Your task to perform on an android device: check android version Image 0: 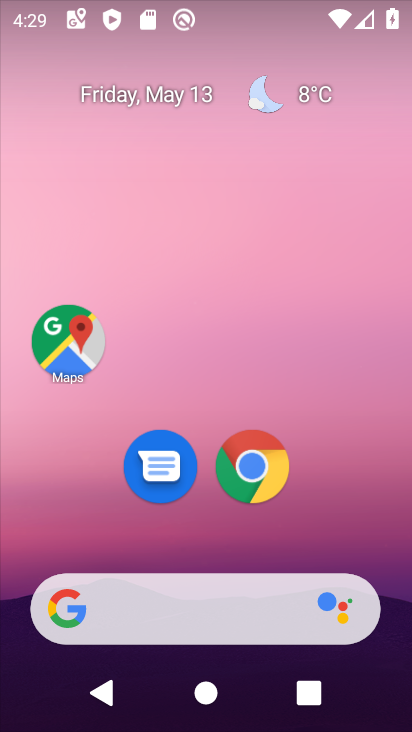
Step 0: drag from (398, 612) to (312, 80)
Your task to perform on an android device: check android version Image 1: 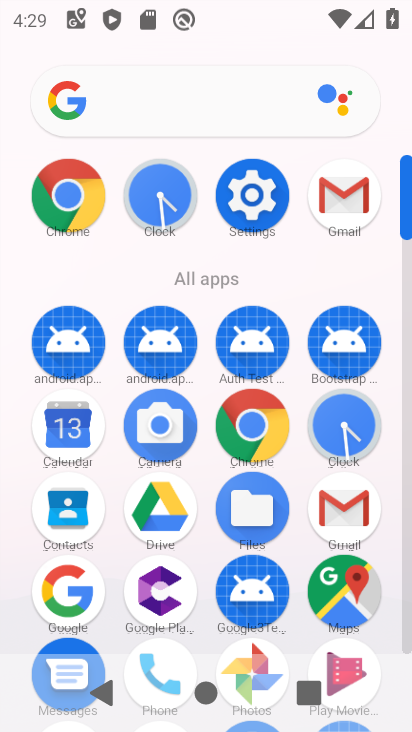
Step 1: click (407, 648)
Your task to perform on an android device: check android version Image 2: 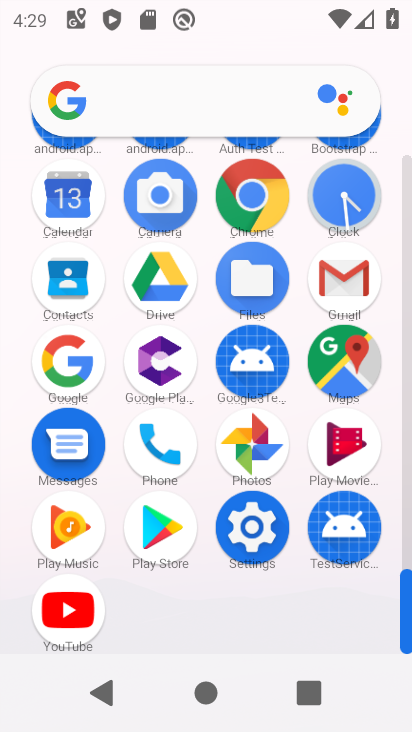
Step 2: click (249, 524)
Your task to perform on an android device: check android version Image 3: 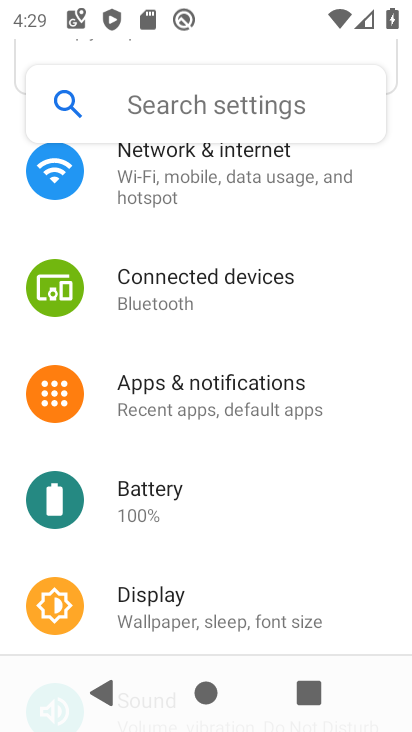
Step 3: drag from (338, 620) to (343, 156)
Your task to perform on an android device: check android version Image 4: 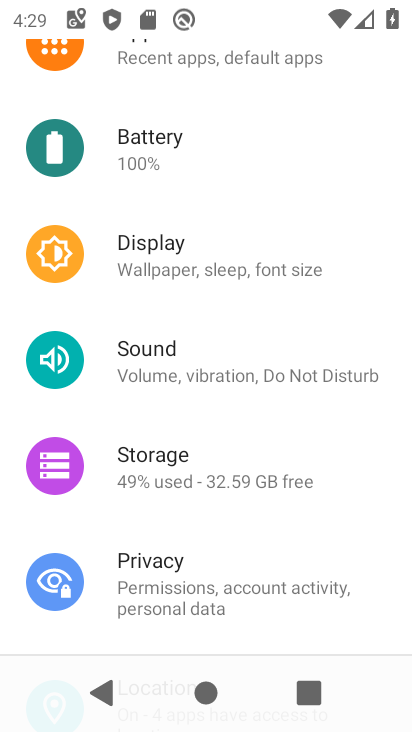
Step 4: drag from (352, 617) to (368, 119)
Your task to perform on an android device: check android version Image 5: 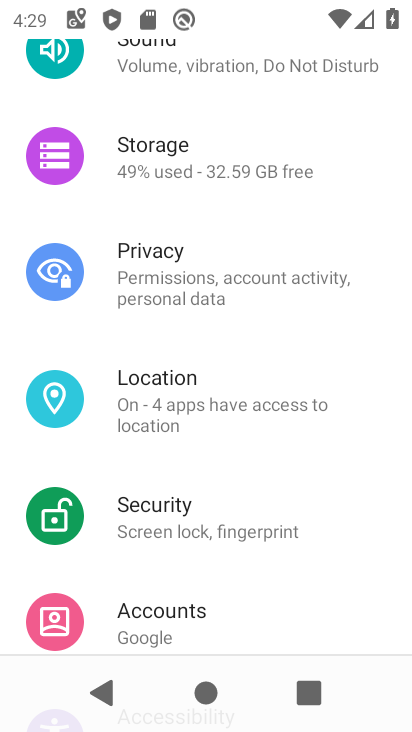
Step 5: drag from (331, 587) to (349, 124)
Your task to perform on an android device: check android version Image 6: 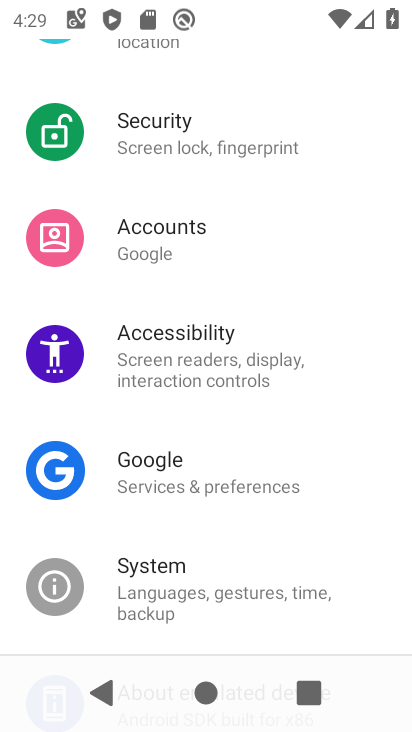
Step 6: drag from (336, 593) to (353, 171)
Your task to perform on an android device: check android version Image 7: 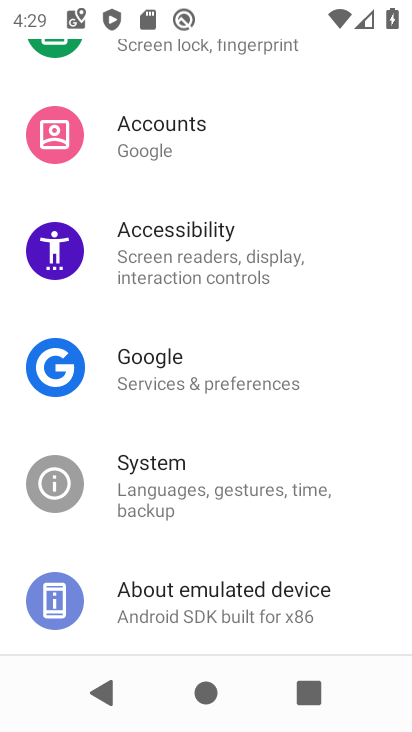
Step 7: click (172, 596)
Your task to perform on an android device: check android version Image 8: 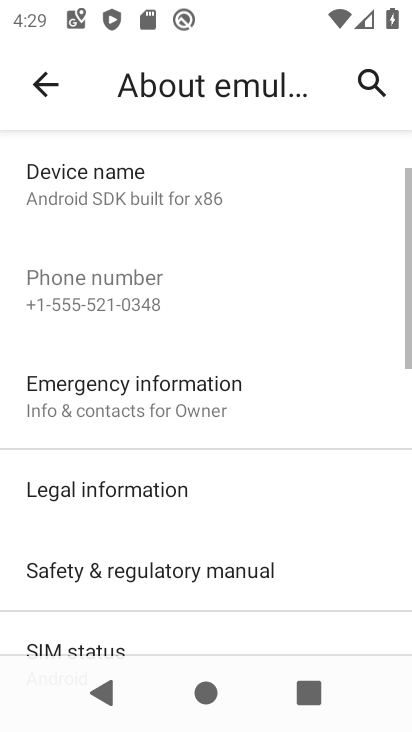
Step 8: drag from (283, 631) to (235, 116)
Your task to perform on an android device: check android version Image 9: 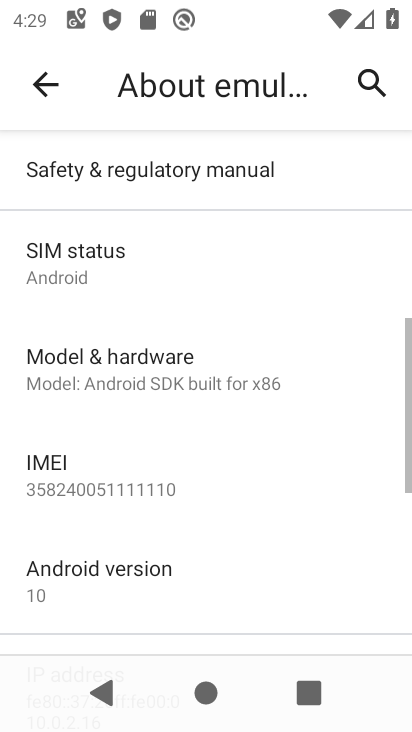
Step 9: click (81, 582)
Your task to perform on an android device: check android version Image 10: 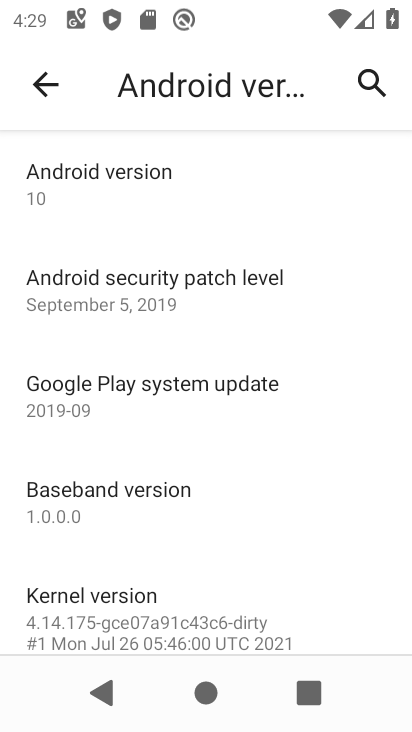
Step 10: task complete